Your task to perform on an android device: What's the weather today? Image 0: 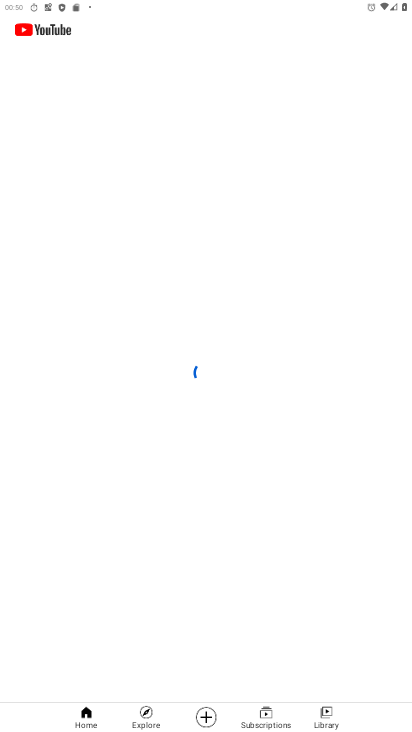
Step 0: click (198, 697)
Your task to perform on an android device: What's the weather today? Image 1: 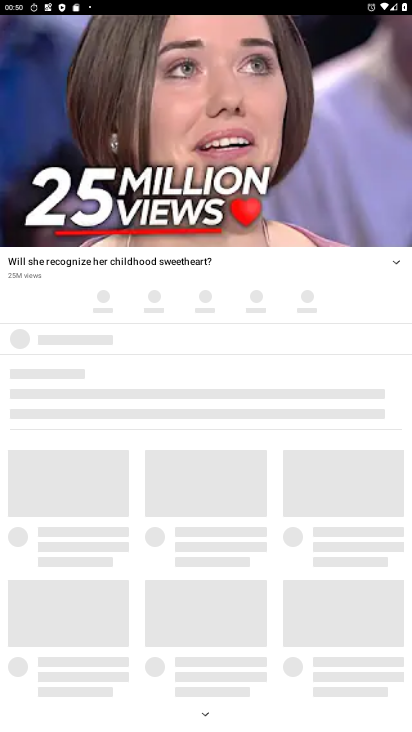
Step 1: press home button
Your task to perform on an android device: What's the weather today? Image 2: 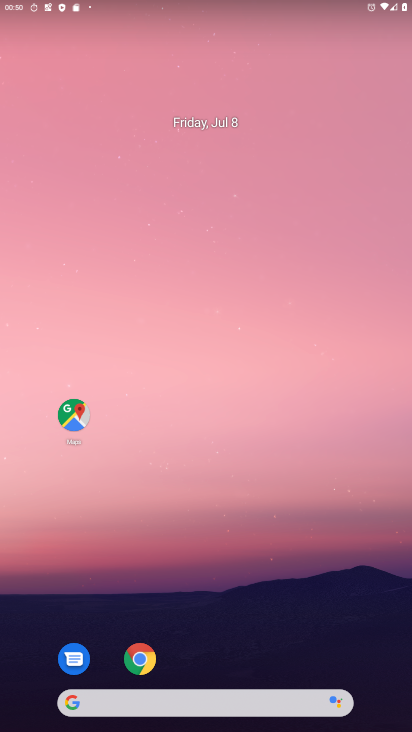
Step 2: click (204, 710)
Your task to perform on an android device: What's the weather today? Image 3: 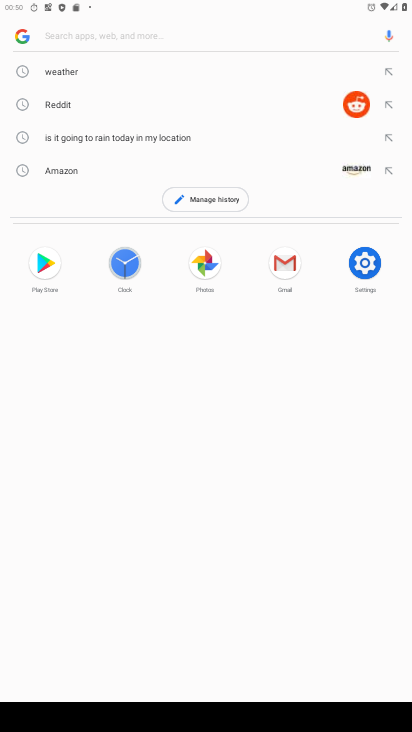
Step 3: click (62, 75)
Your task to perform on an android device: What's the weather today? Image 4: 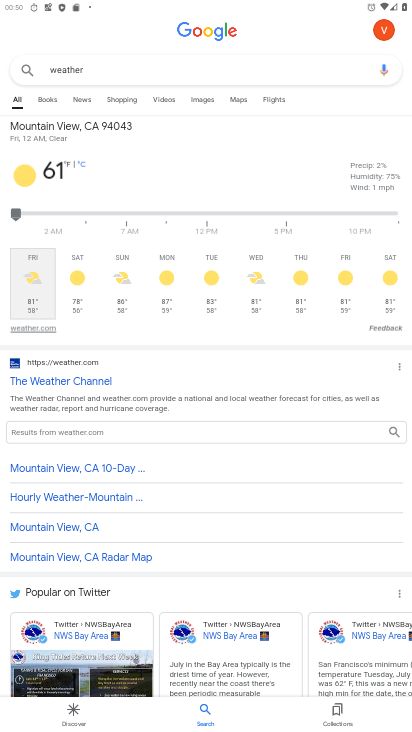
Step 4: task complete